Your task to perform on an android device: make emails show in primary in the gmail app Image 0: 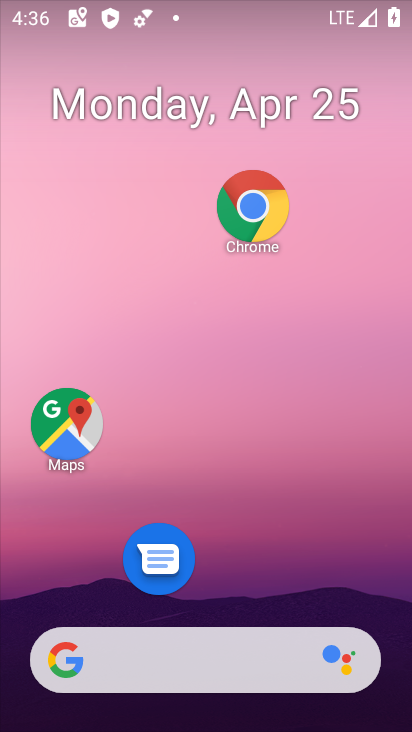
Step 0: drag from (255, 559) to (218, 145)
Your task to perform on an android device: make emails show in primary in the gmail app Image 1: 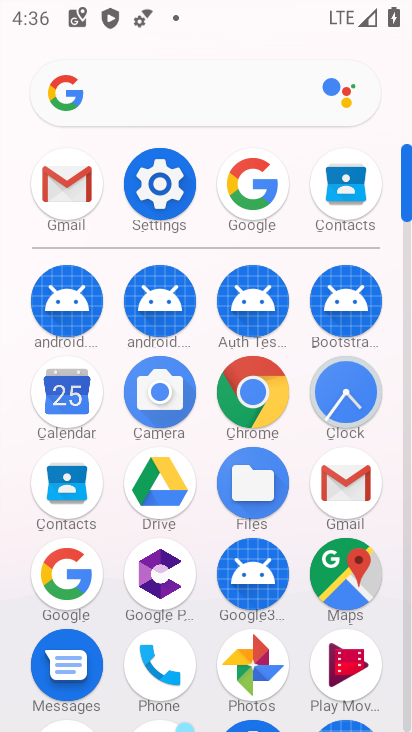
Step 1: click (65, 190)
Your task to perform on an android device: make emails show in primary in the gmail app Image 2: 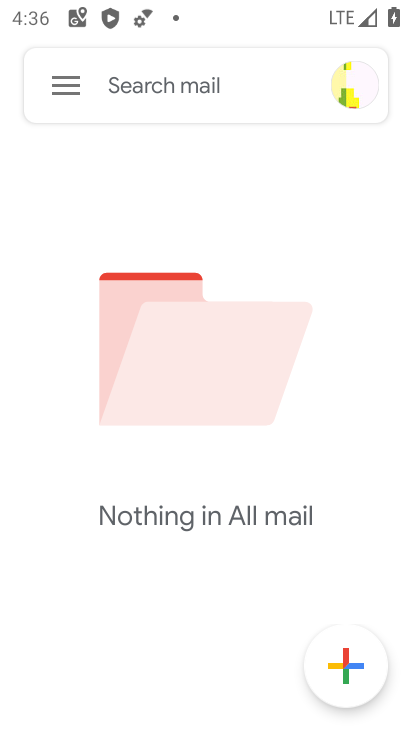
Step 2: click (68, 81)
Your task to perform on an android device: make emails show in primary in the gmail app Image 3: 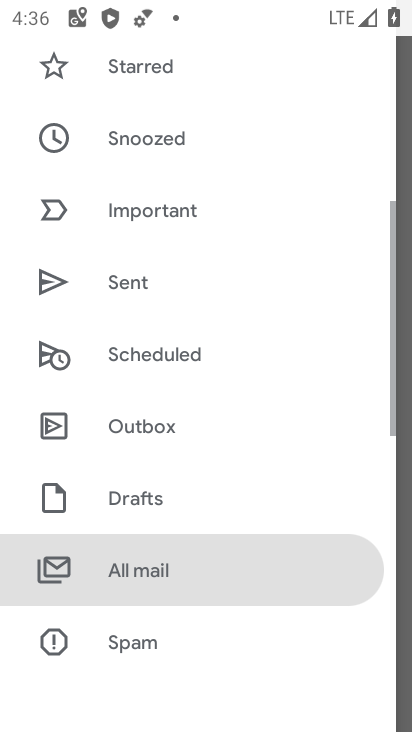
Step 3: task complete